Your task to perform on an android device: toggle javascript in the chrome app Image 0: 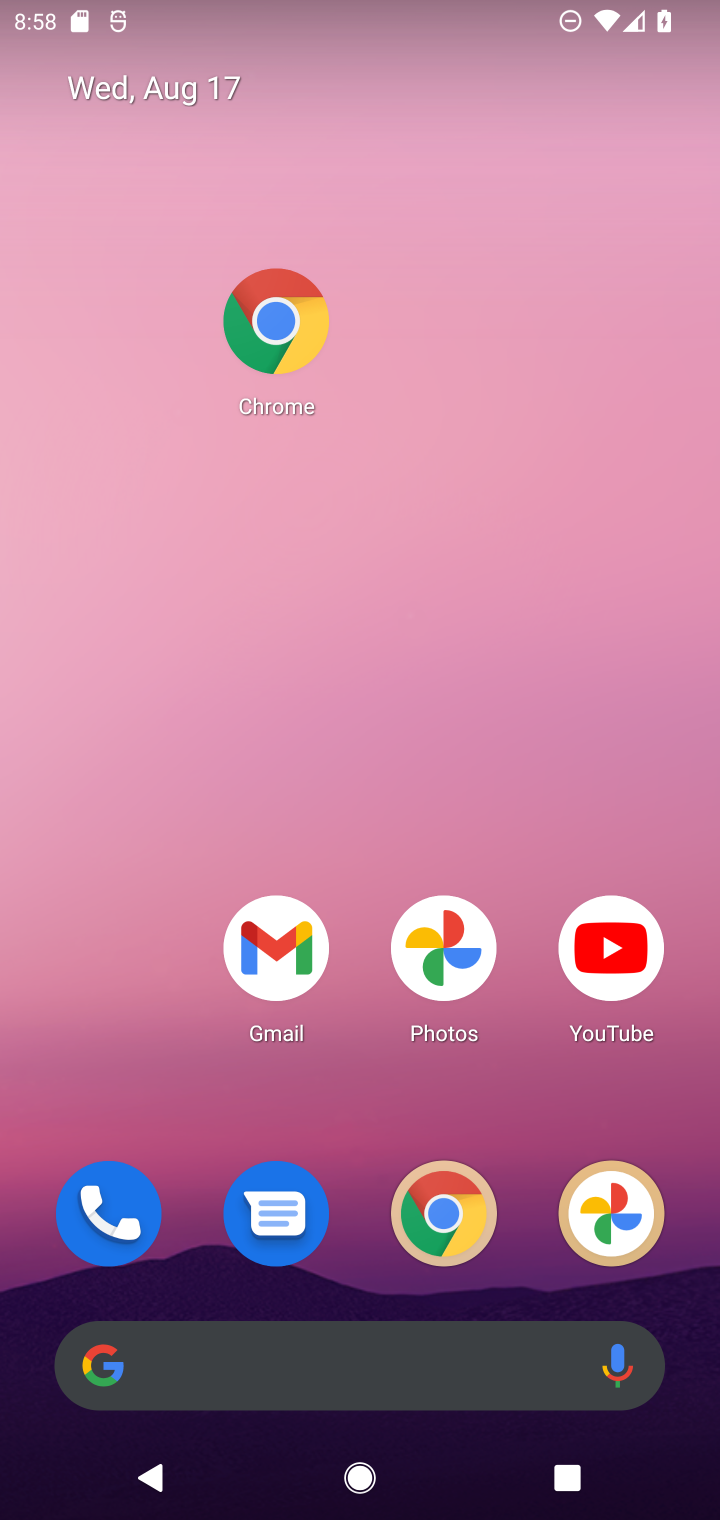
Step 0: click (422, 1227)
Your task to perform on an android device: toggle javascript in the chrome app Image 1: 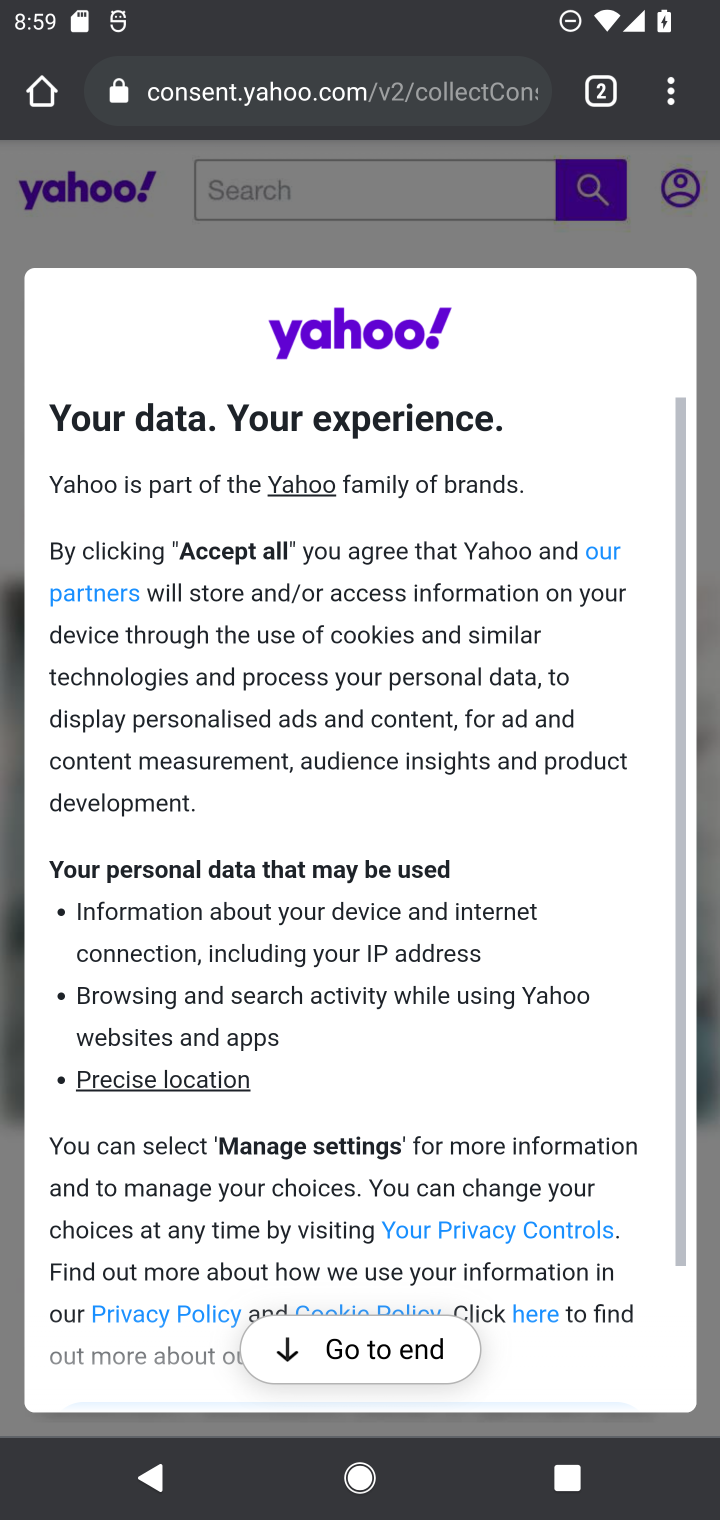
Step 1: click (314, 846)
Your task to perform on an android device: toggle javascript in the chrome app Image 2: 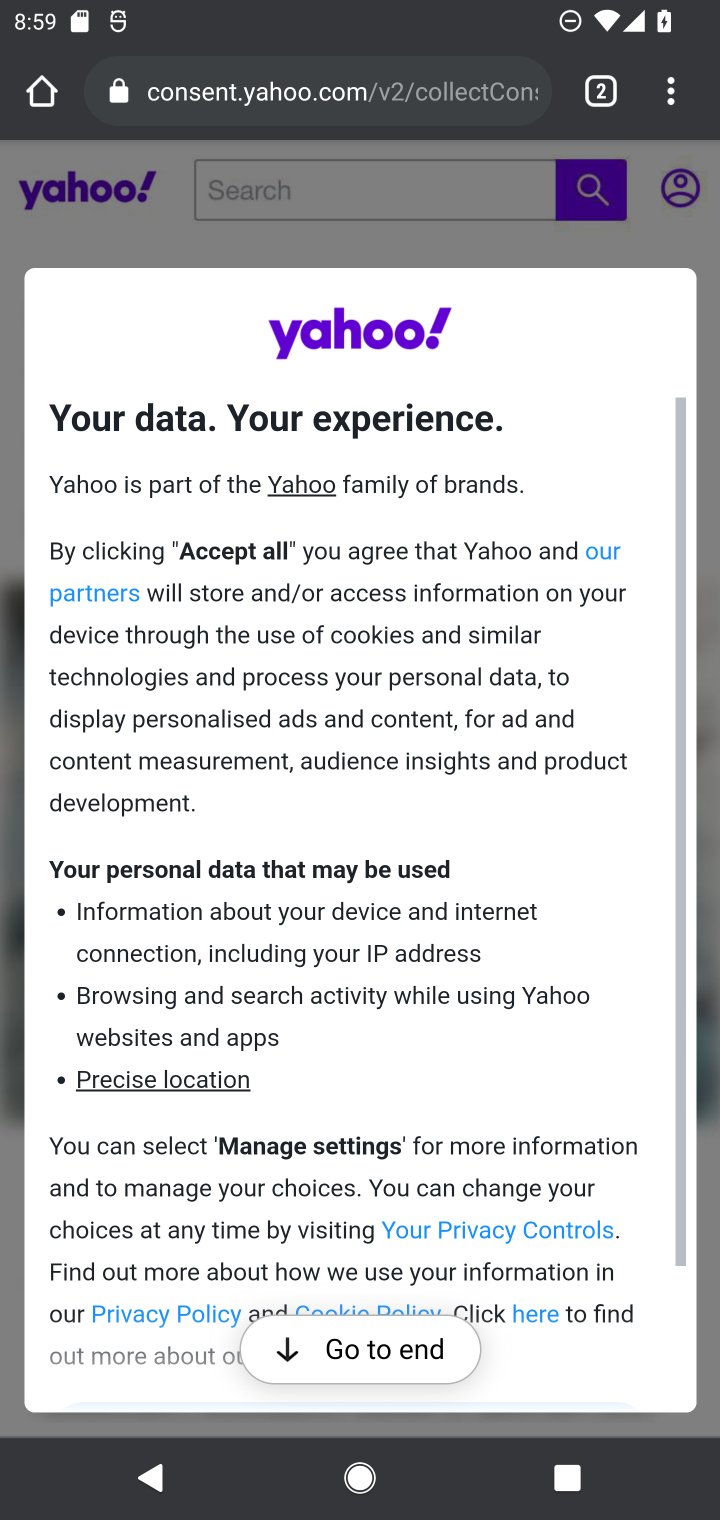
Step 2: click (673, 65)
Your task to perform on an android device: toggle javascript in the chrome app Image 3: 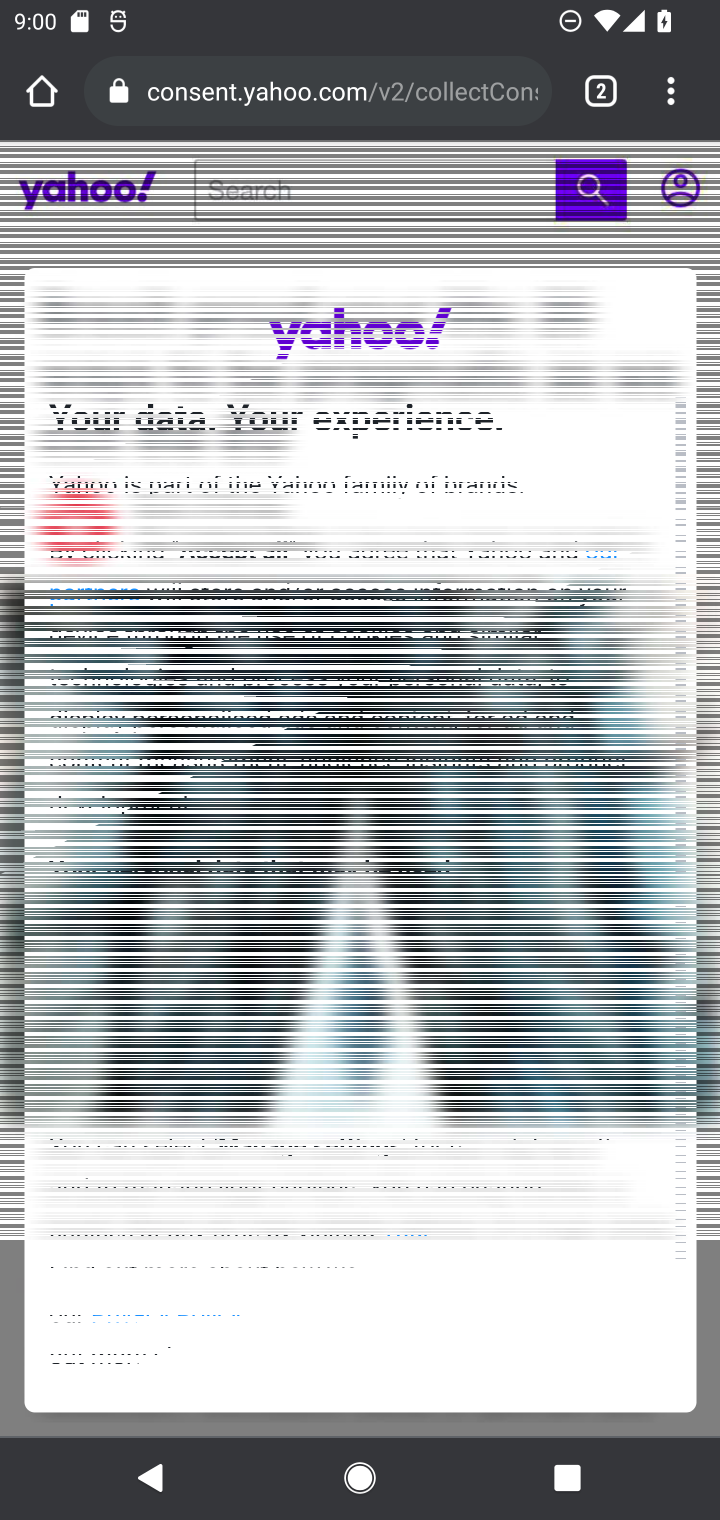
Step 3: task complete